Your task to perform on an android device: Show me recent news Image 0: 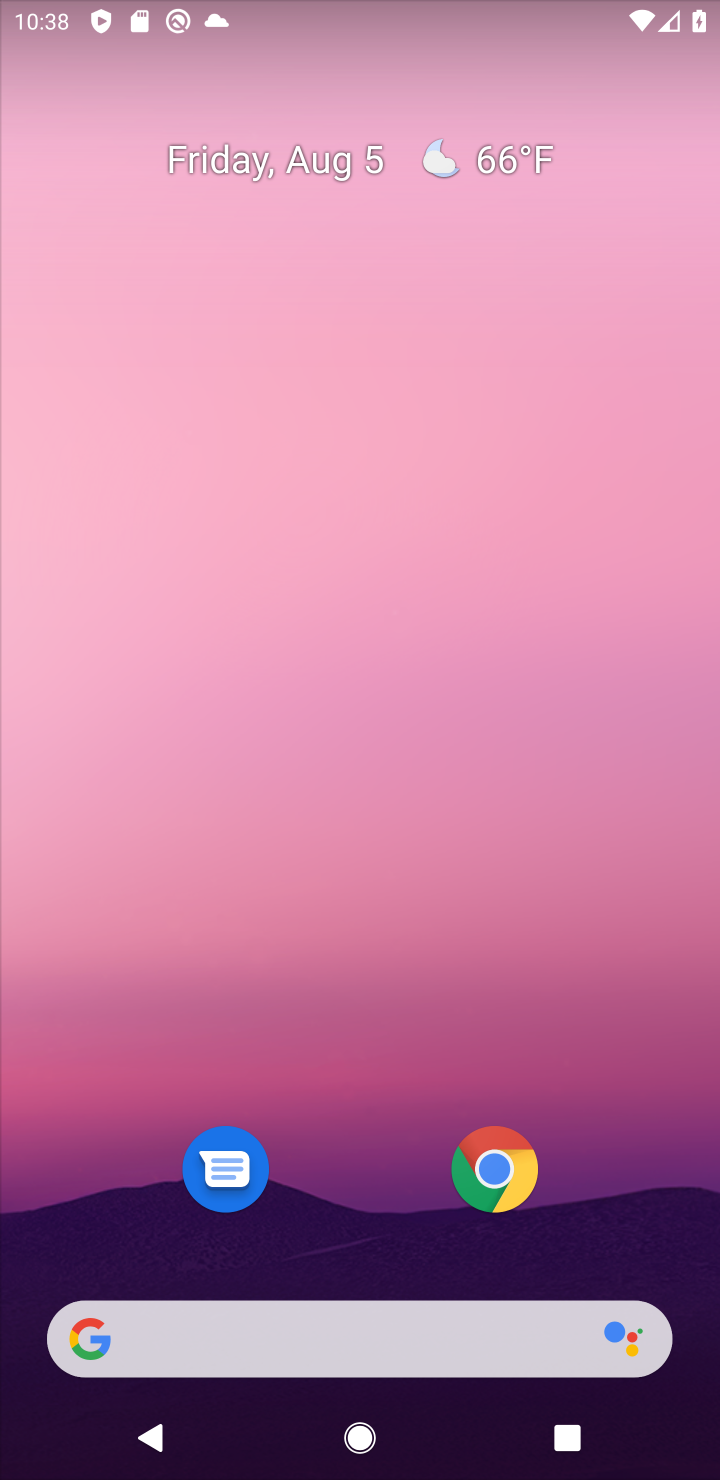
Step 0: drag from (84, 690) to (696, 758)
Your task to perform on an android device: Show me recent news Image 1: 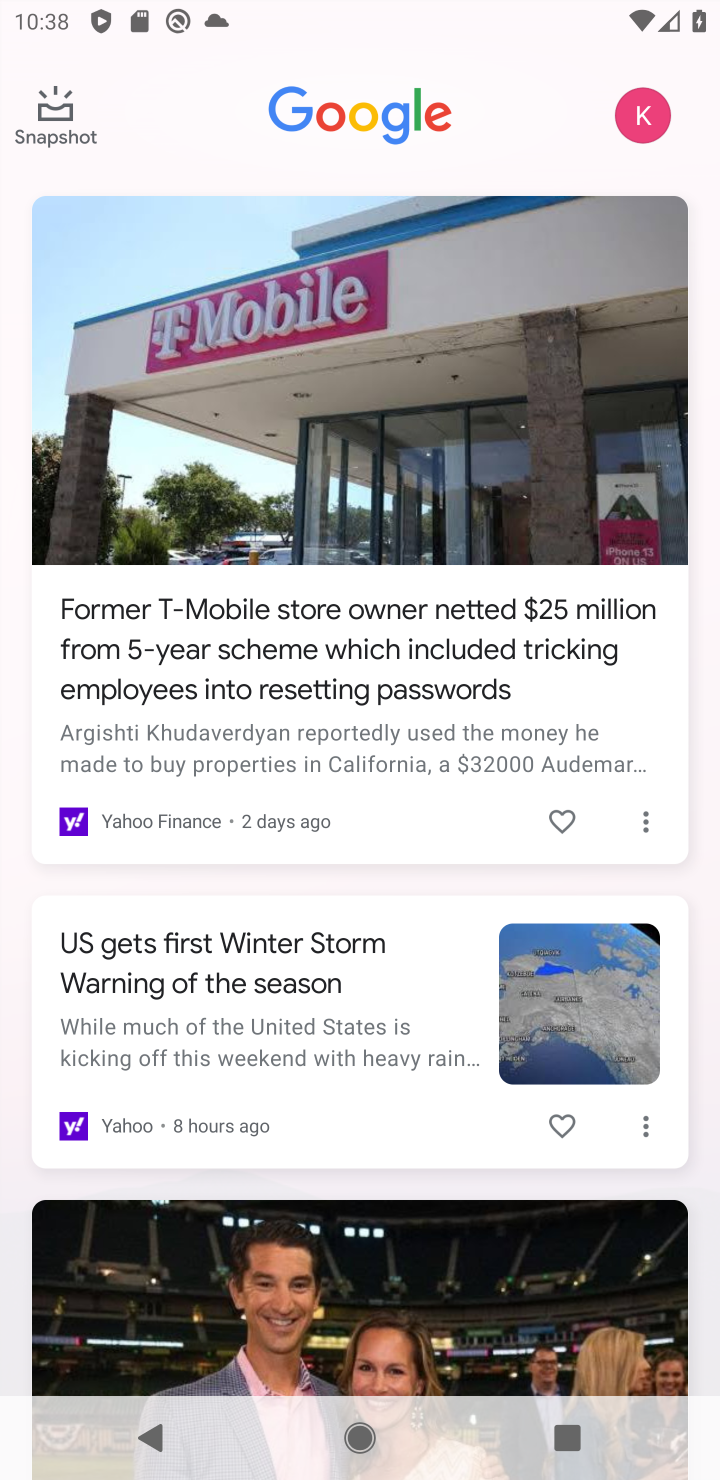
Step 1: task complete